Your task to perform on an android device: Is it going to rain tomorrow? Image 0: 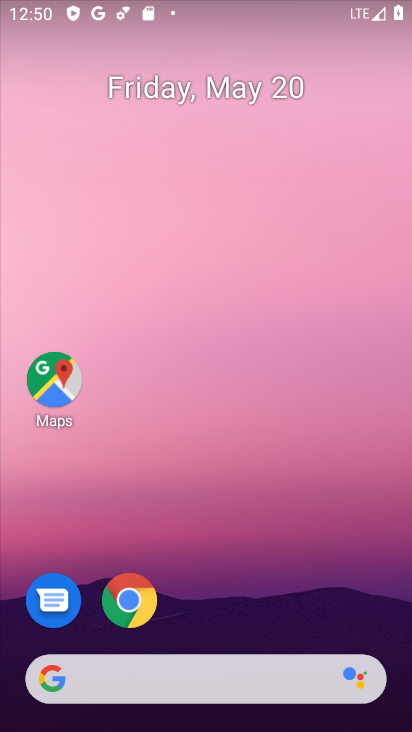
Step 0: drag from (23, 250) to (367, 166)
Your task to perform on an android device: Is it going to rain tomorrow? Image 1: 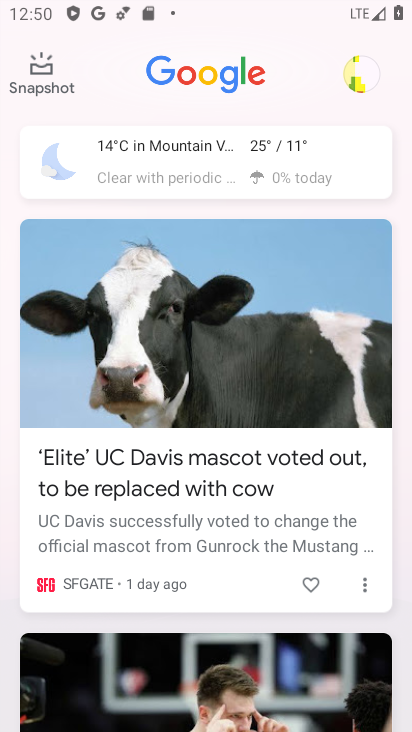
Step 1: click (56, 175)
Your task to perform on an android device: Is it going to rain tomorrow? Image 2: 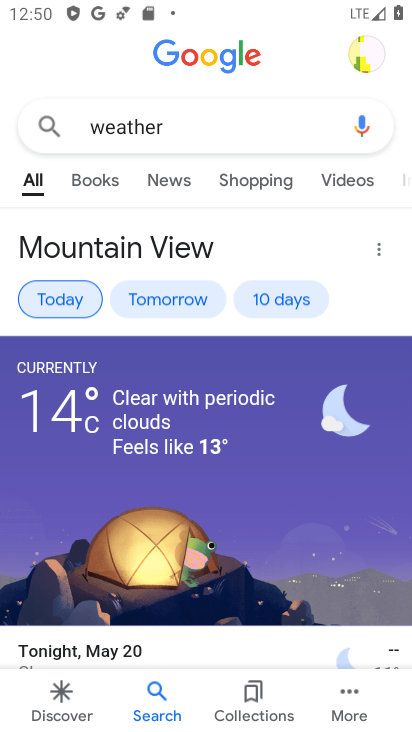
Step 2: click (167, 306)
Your task to perform on an android device: Is it going to rain tomorrow? Image 3: 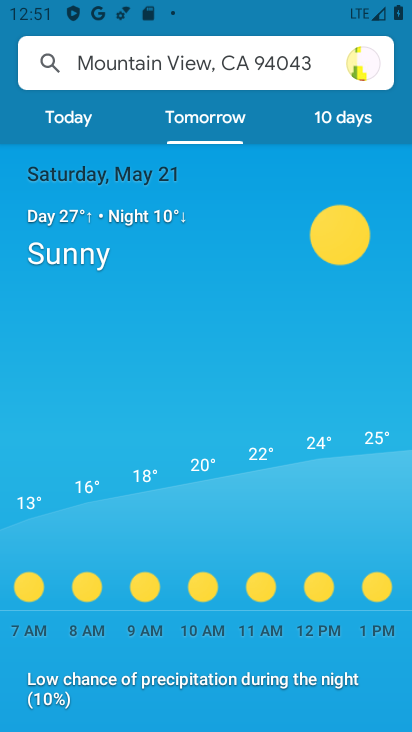
Step 3: task complete